Your task to perform on an android device: Show me the best rated power washer on Home Depot. Image 0: 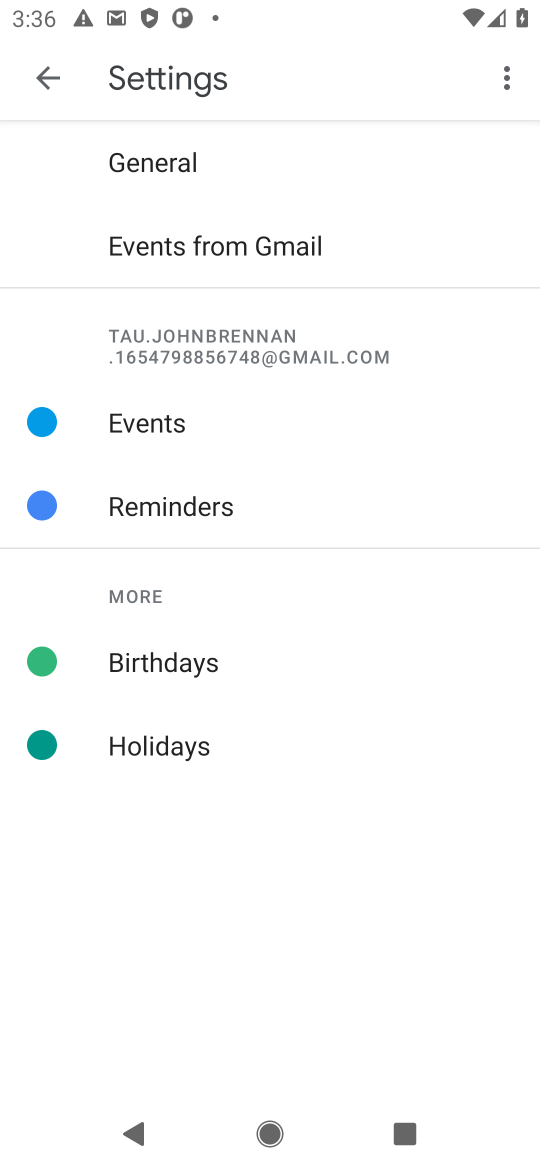
Step 0: press home button
Your task to perform on an android device: Show me the best rated power washer on Home Depot. Image 1: 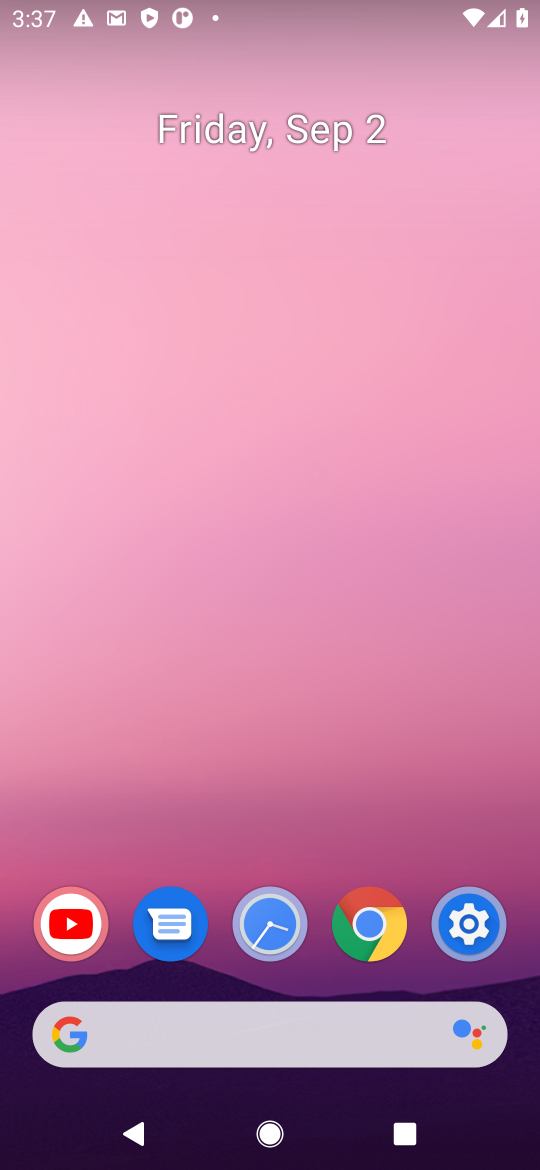
Step 1: click (365, 1024)
Your task to perform on an android device: Show me the best rated power washer on Home Depot. Image 2: 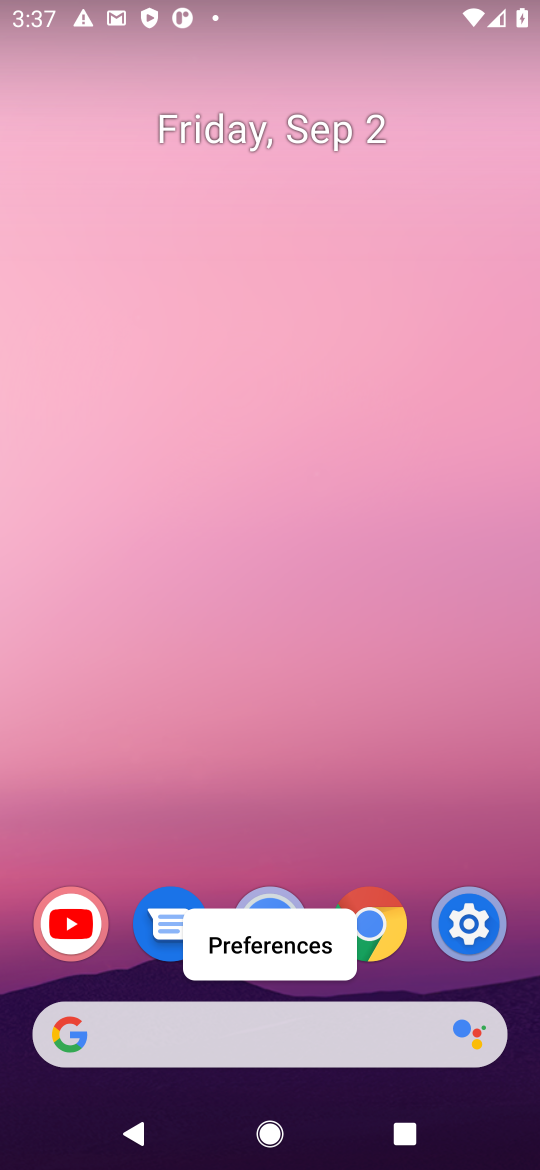
Step 2: click (365, 1024)
Your task to perform on an android device: Show me the best rated power washer on Home Depot. Image 3: 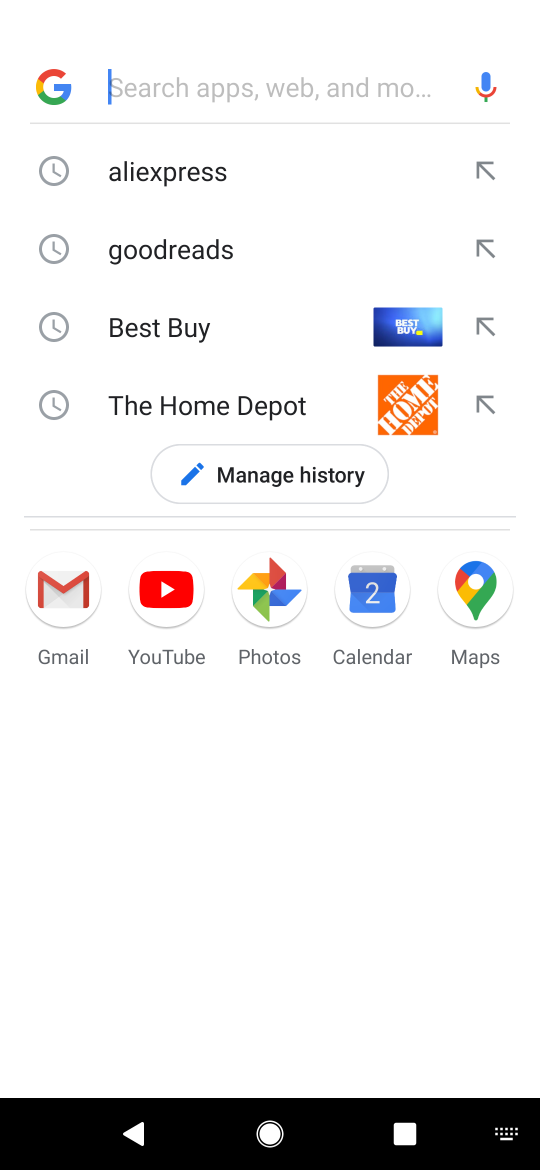
Step 3: press enter
Your task to perform on an android device: Show me the best rated power washer on Home Depot. Image 4: 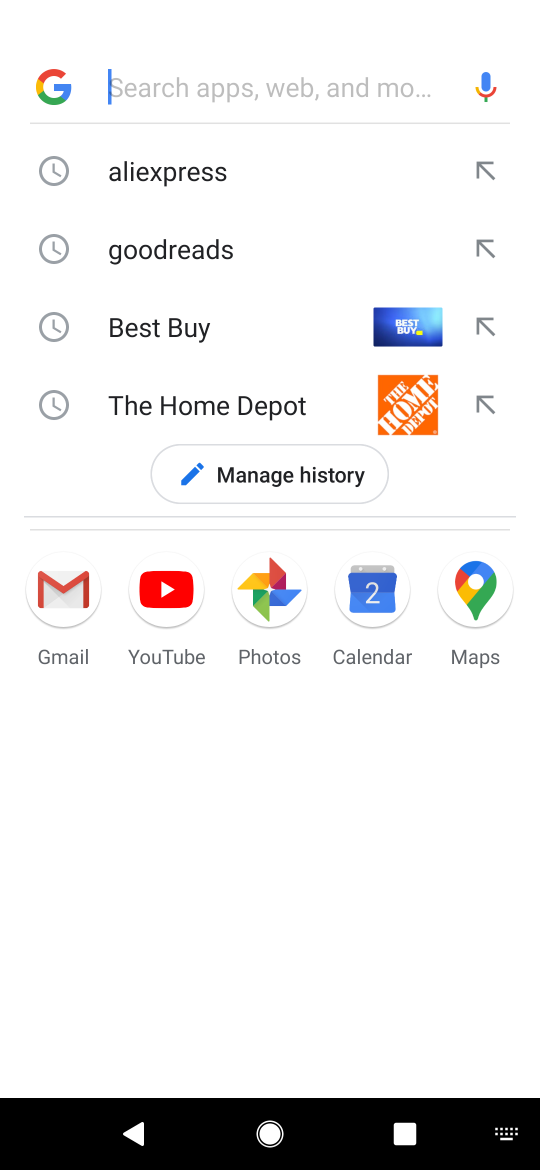
Step 4: type "home depot"
Your task to perform on an android device: Show me the best rated power washer on Home Depot. Image 5: 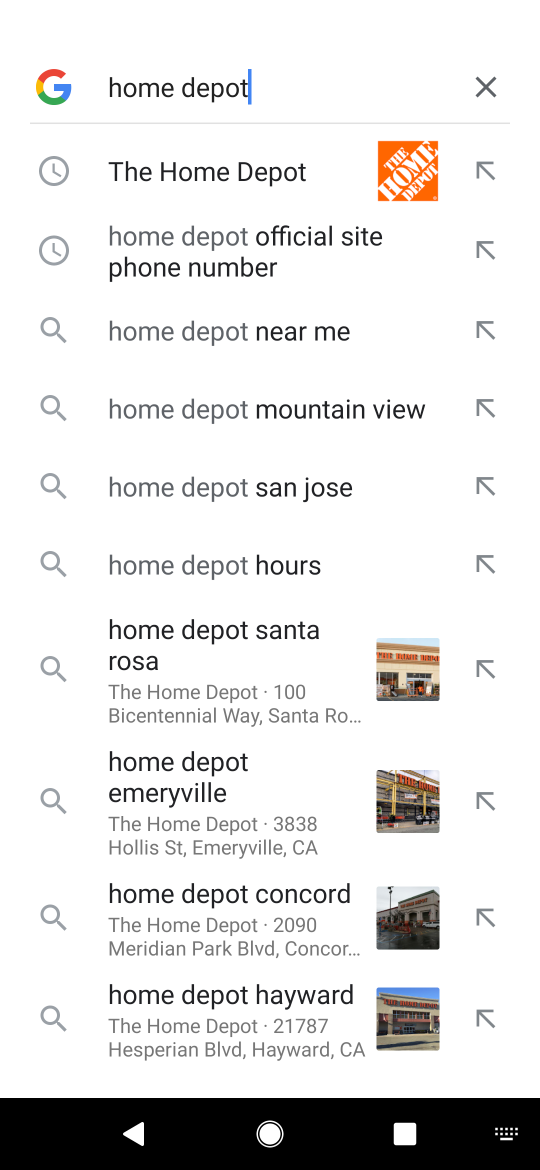
Step 5: click (242, 172)
Your task to perform on an android device: Show me the best rated power washer on Home Depot. Image 6: 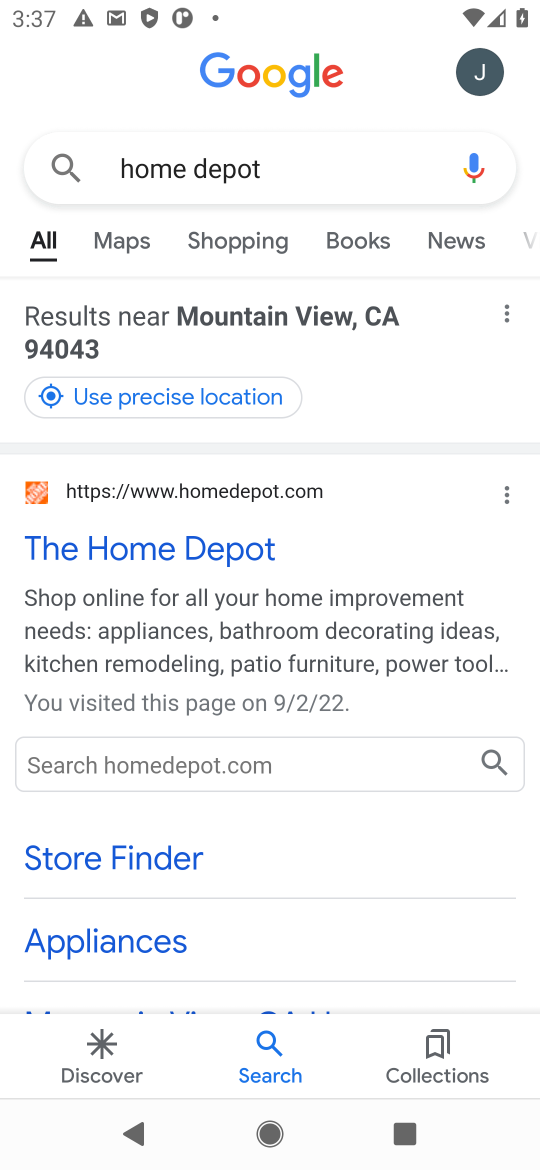
Step 6: click (166, 535)
Your task to perform on an android device: Show me the best rated power washer on Home Depot. Image 7: 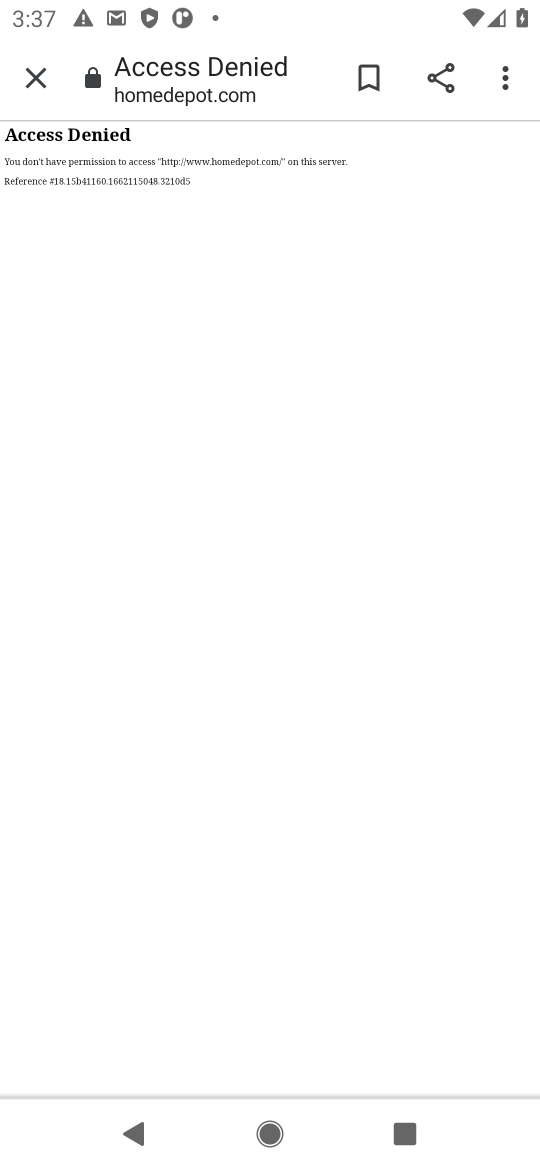
Step 7: task complete